Your task to perform on an android device: turn off wifi Image 0: 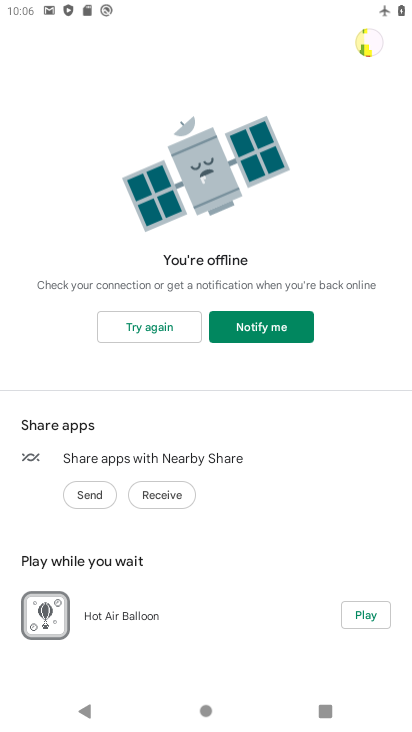
Step 0: press back button
Your task to perform on an android device: turn off wifi Image 1: 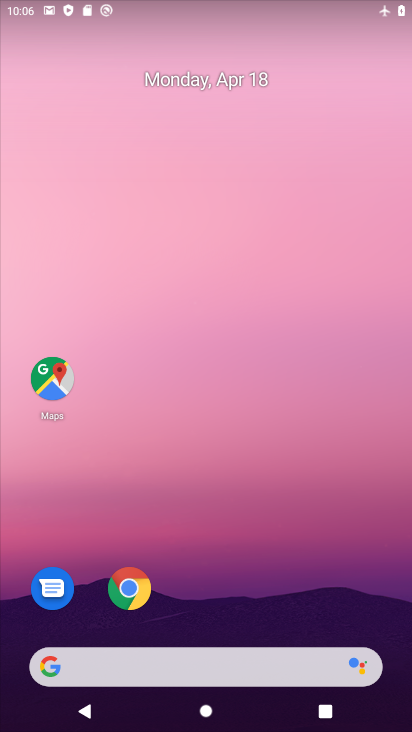
Step 1: drag from (188, 656) to (191, 549)
Your task to perform on an android device: turn off wifi Image 2: 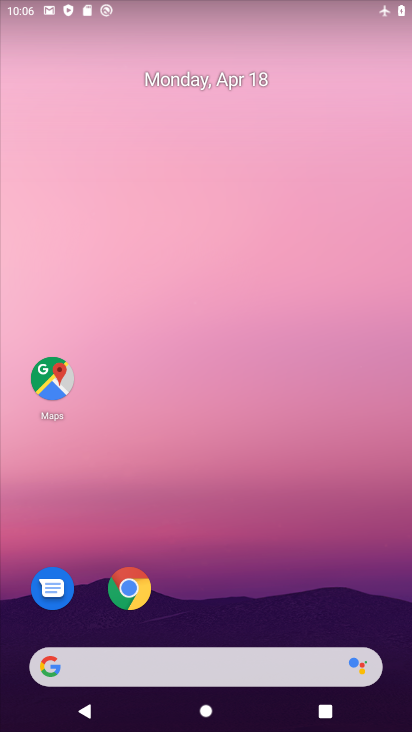
Step 2: drag from (168, 661) to (167, 379)
Your task to perform on an android device: turn off wifi Image 3: 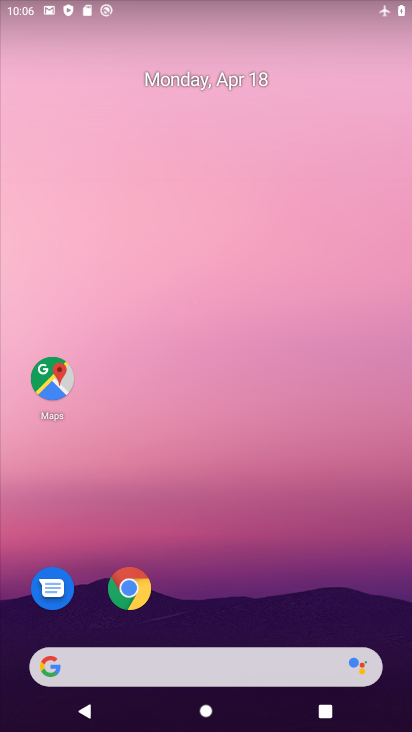
Step 3: drag from (166, 652) to (157, 141)
Your task to perform on an android device: turn off wifi Image 4: 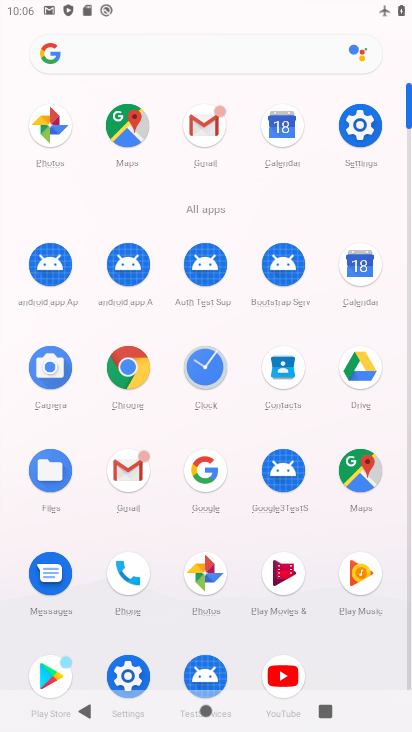
Step 4: click (335, 129)
Your task to perform on an android device: turn off wifi Image 5: 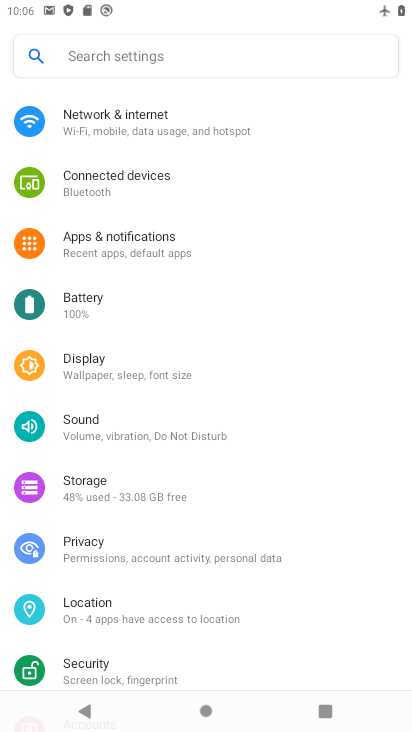
Step 5: click (186, 111)
Your task to perform on an android device: turn off wifi Image 6: 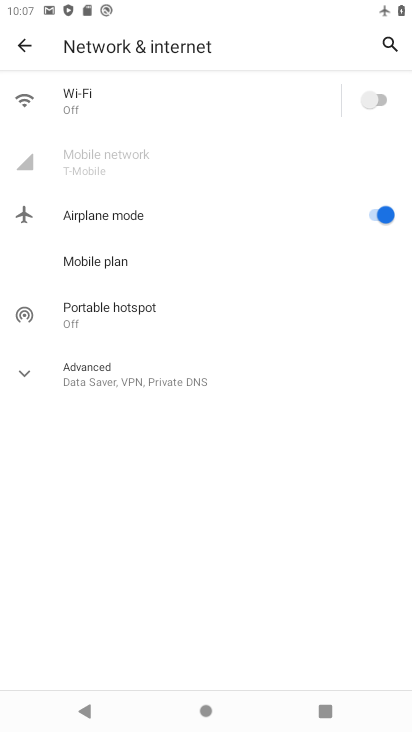
Step 6: task complete